Your task to perform on an android device: add a contact Image 0: 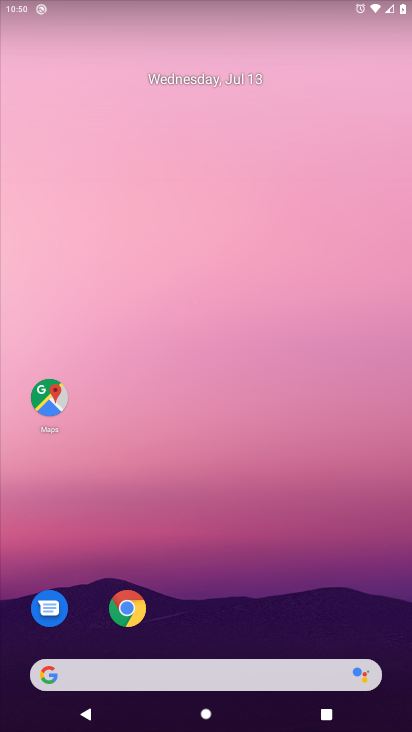
Step 0: drag from (26, 710) to (177, 195)
Your task to perform on an android device: add a contact Image 1: 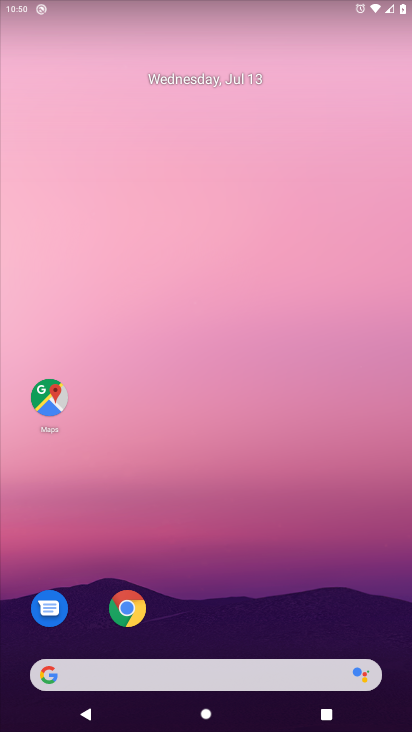
Step 1: drag from (30, 690) to (186, 97)
Your task to perform on an android device: add a contact Image 2: 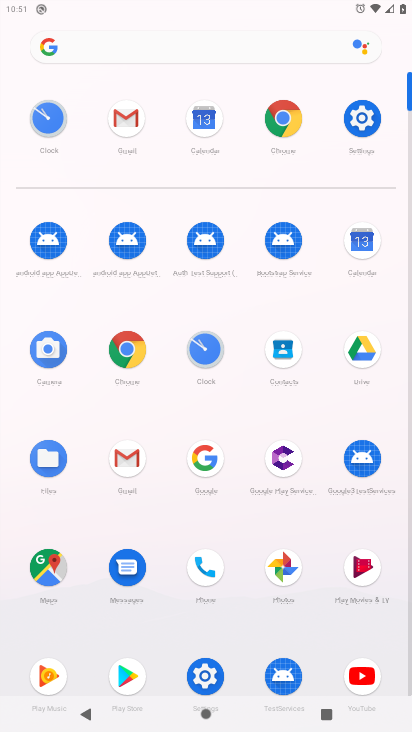
Step 2: click (267, 347)
Your task to perform on an android device: add a contact Image 3: 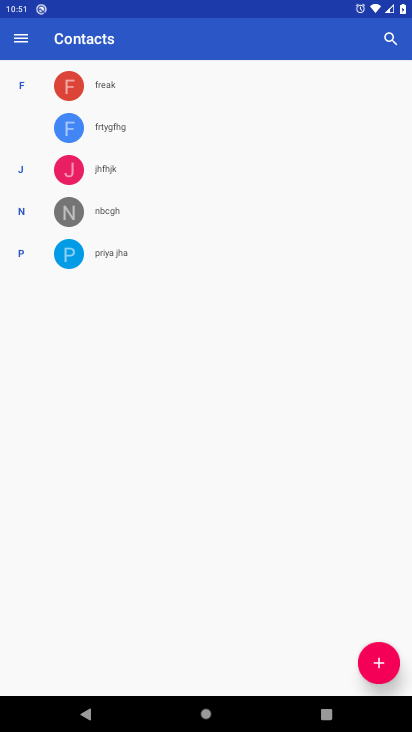
Step 3: click (379, 652)
Your task to perform on an android device: add a contact Image 4: 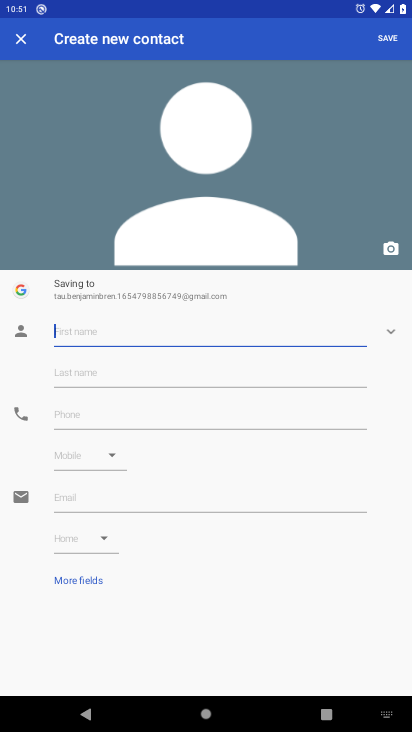
Step 4: click (80, 326)
Your task to perform on an android device: add a contact Image 5: 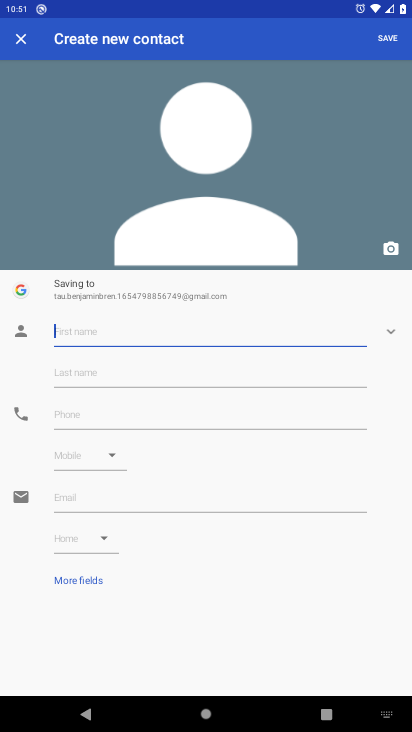
Step 5: type "xzcv"
Your task to perform on an android device: add a contact Image 6: 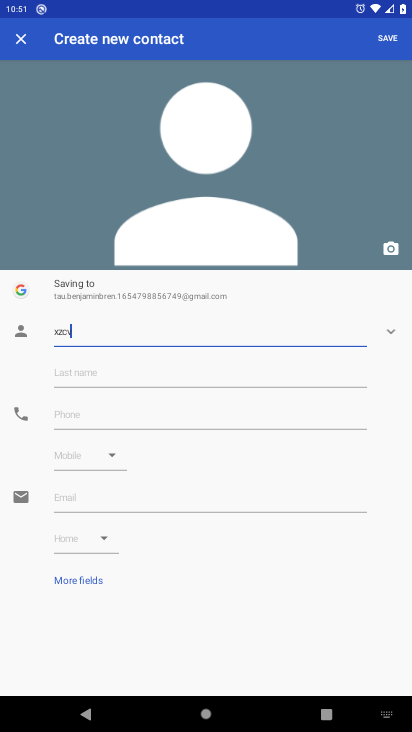
Step 6: type ""
Your task to perform on an android device: add a contact Image 7: 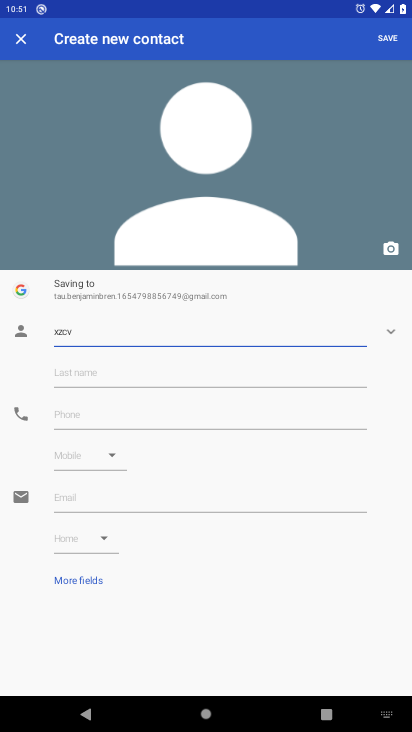
Step 7: click (394, 45)
Your task to perform on an android device: add a contact Image 8: 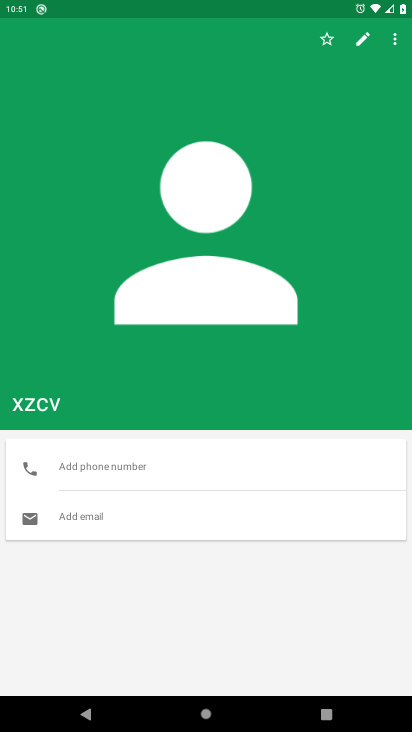
Step 8: task complete